Your task to perform on an android device: Go to Wikipedia Image 0: 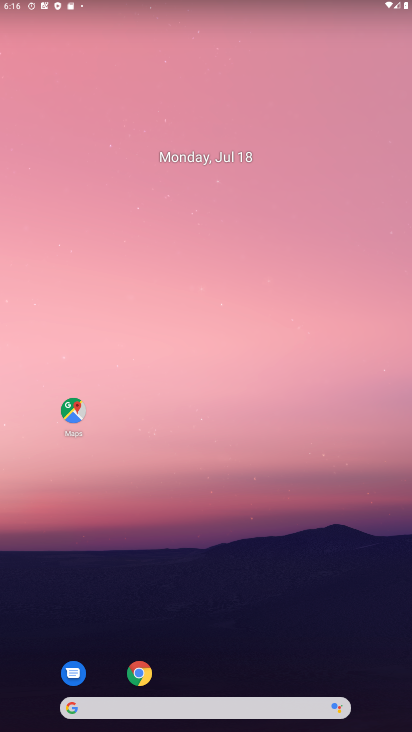
Step 0: click (165, 709)
Your task to perform on an android device: Go to Wikipedia Image 1: 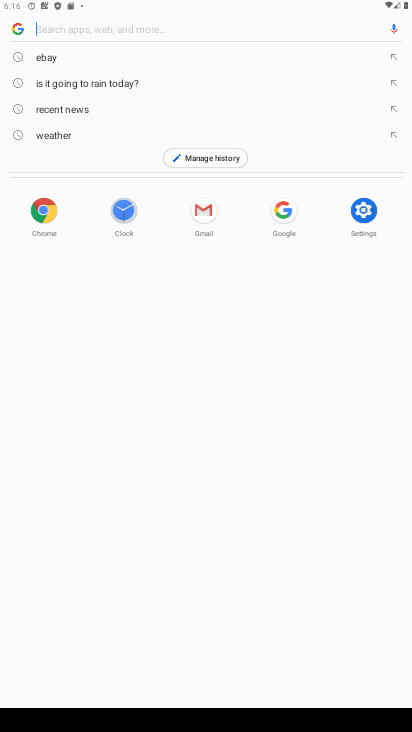
Step 1: type "Wikipedia"
Your task to perform on an android device: Go to Wikipedia Image 2: 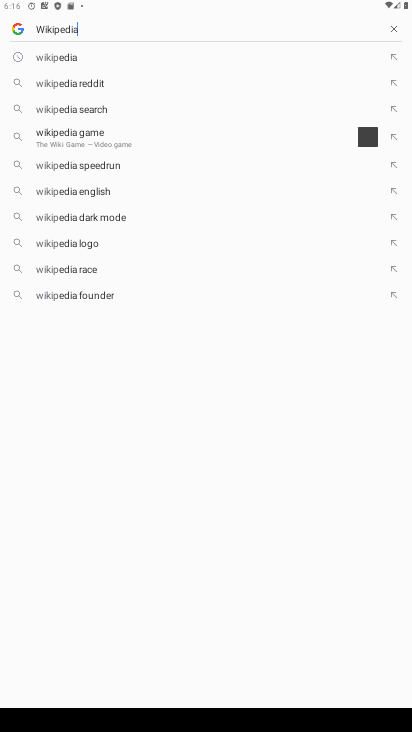
Step 2: press enter
Your task to perform on an android device: Go to Wikipedia Image 3: 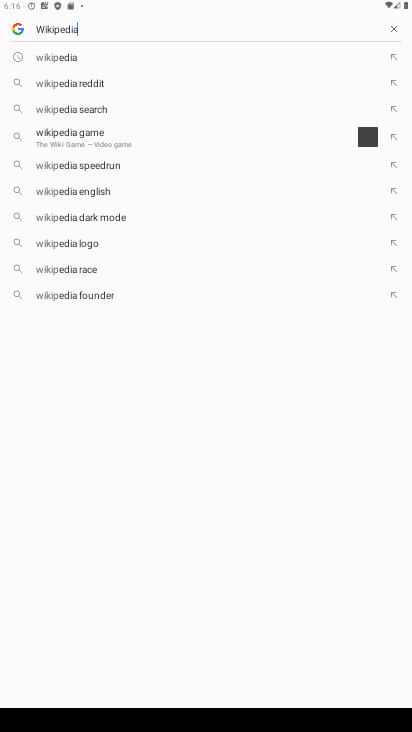
Step 3: type ""
Your task to perform on an android device: Go to Wikipedia Image 4: 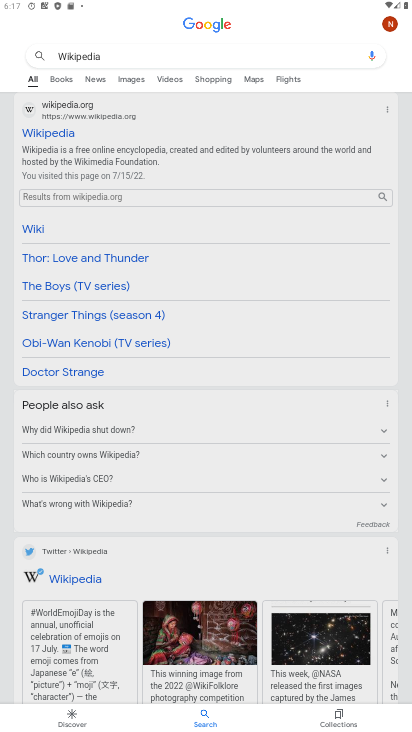
Step 4: task complete